Your task to perform on an android device: change the upload size in google photos Image 0: 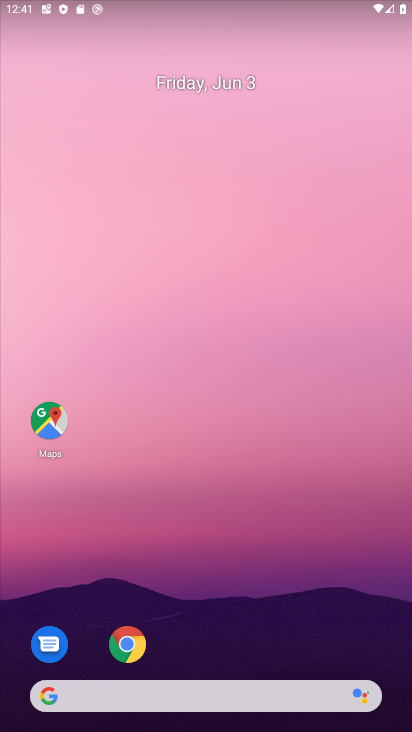
Step 0: drag from (203, 729) to (203, 24)
Your task to perform on an android device: change the upload size in google photos Image 1: 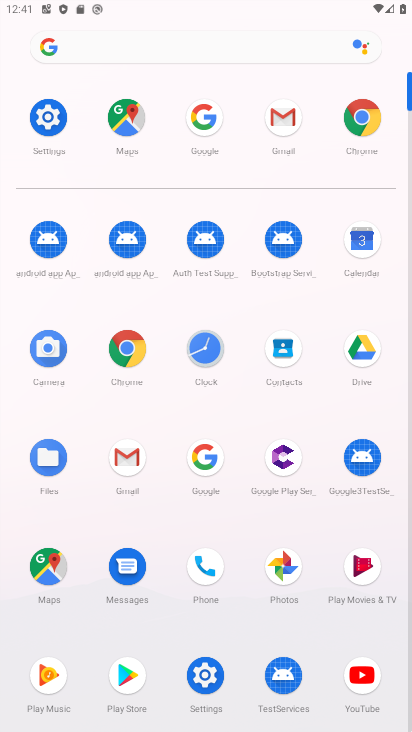
Step 1: click (289, 569)
Your task to perform on an android device: change the upload size in google photos Image 2: 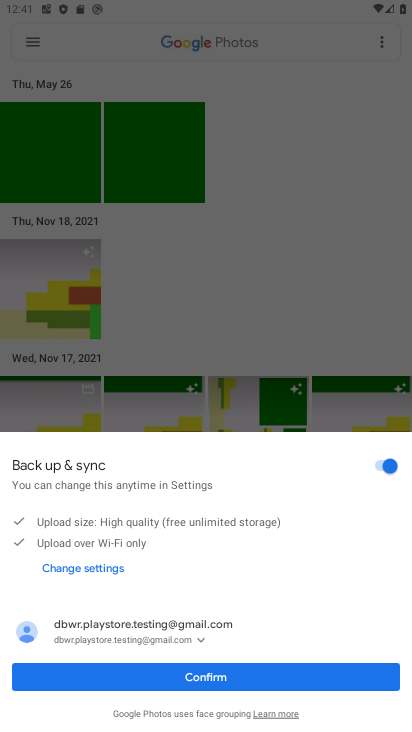
Step 2: click (178, 683)
Your task to perform on an android device: change the upload size in google photos Image 3: 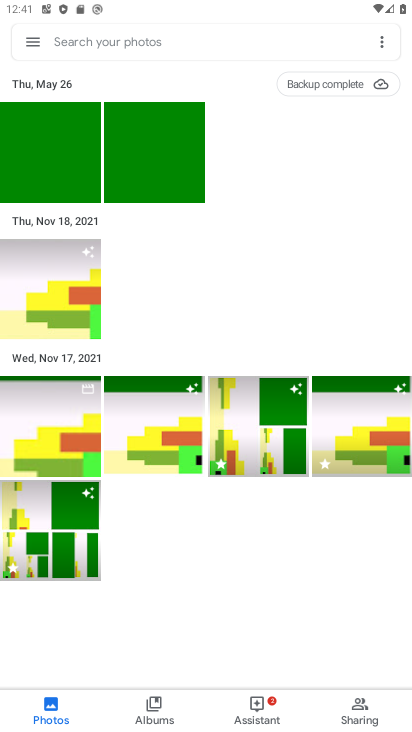
Step 3: click (32, 38)
Your task to perform on an android device: change the upload size in google photos Image 4: 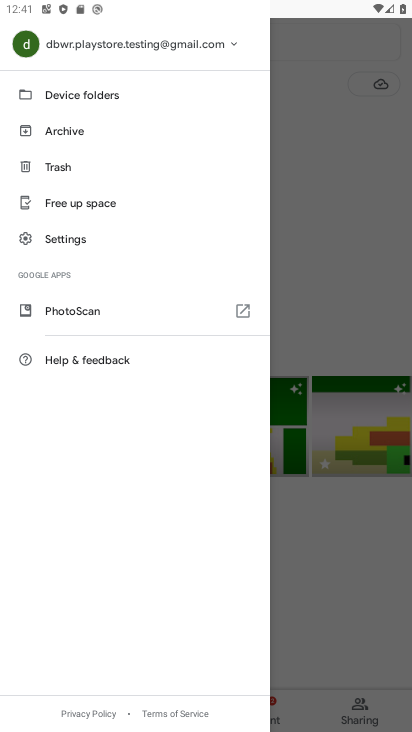
Step 4: click (65, 241)
Your task to perform on an android device: change the upload size in google photos Image 5: 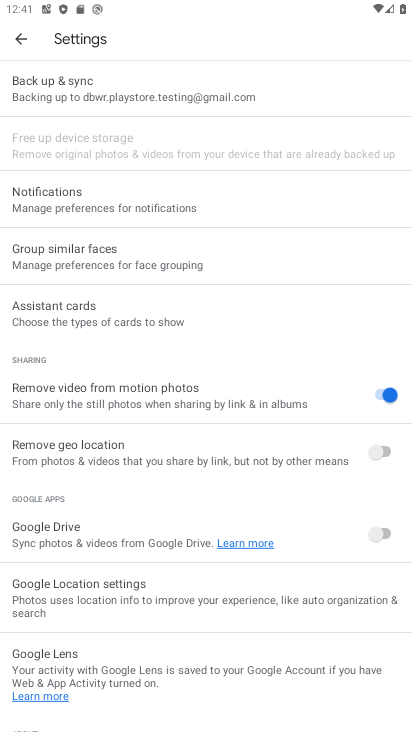
Step 5: click (72, 100)
Your task to perform on an android device: change the upload size in google photos Image 6: 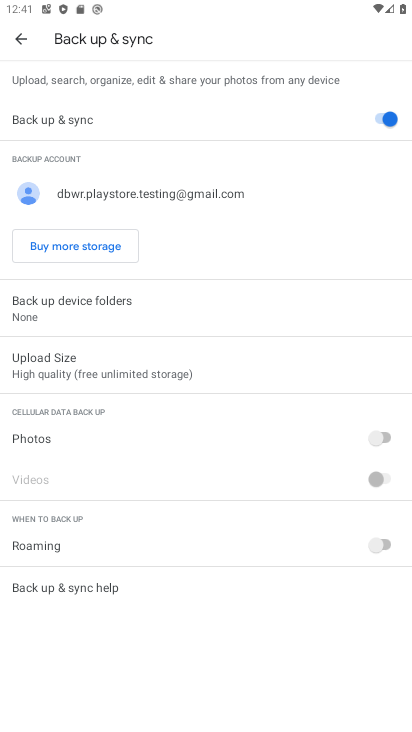
Step 6: click (57, 375)
Your task to perform on an android device: change the upload size in google photos Image 7: 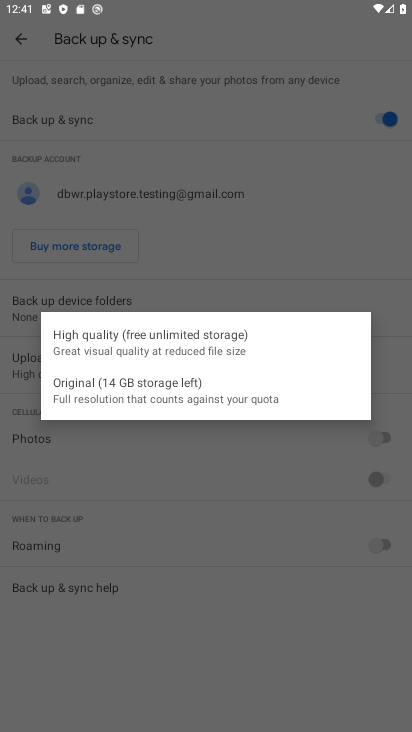
Step 7: click (104, 393)
Your task to perform on an android device: change the upload size in google photos Image 8: 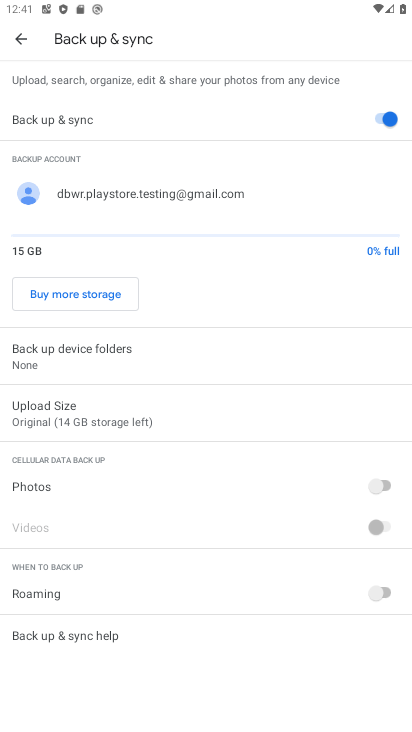
Step 8: task complete